Your task to perform on an android device: turn on the 24-hour format for clock Image 0: 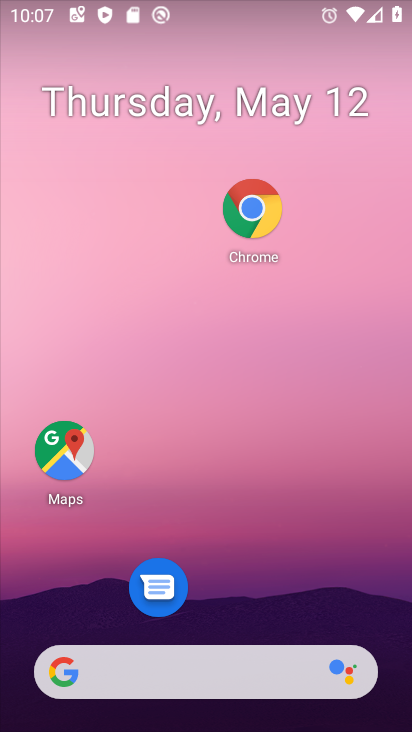
Step 0: drag from (298, 558) to (311, 161)
Your task to perform on an android device: turn on the 24-hour format for clock Image 1: 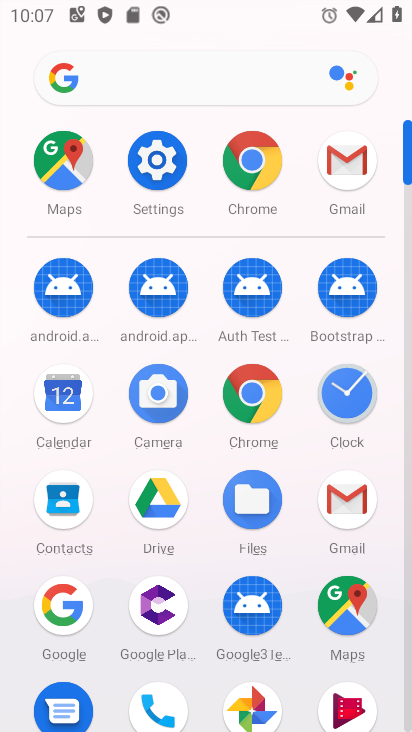
Step 1: click (346, 396)
Your task to perform on an android device: turn on the 24-hour format for clock Image 2: 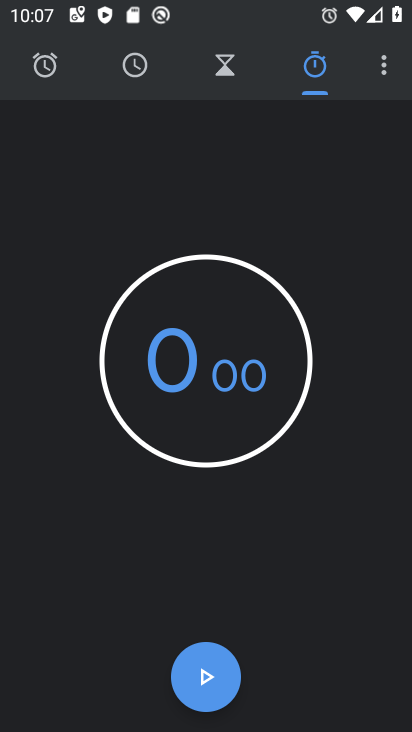
Step 2: click (377, 68)
Your task to perform on an android device: turn on the 24-hour format for clock Image 3: 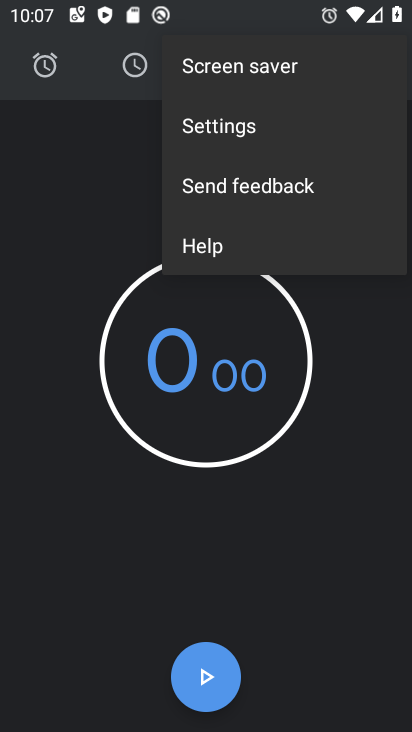
Step 3: click (230, 129)
Your task to perform on an android device: turn on the 24-hour format for clock Image 4: 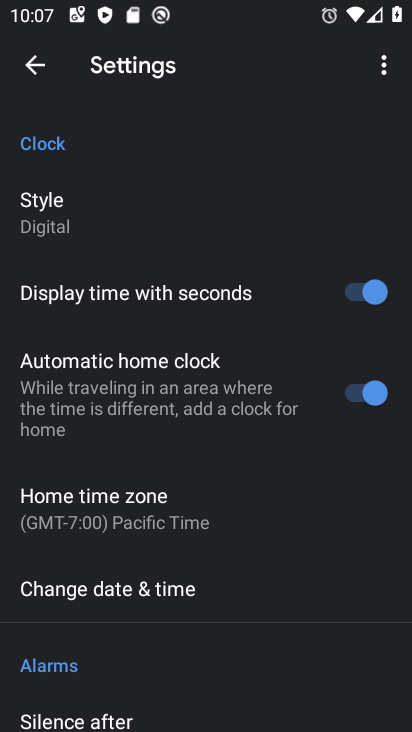
Step 4: click (160, 588)
Your task to perform on an android device: turn on the 24-hour format for clock Image 5: 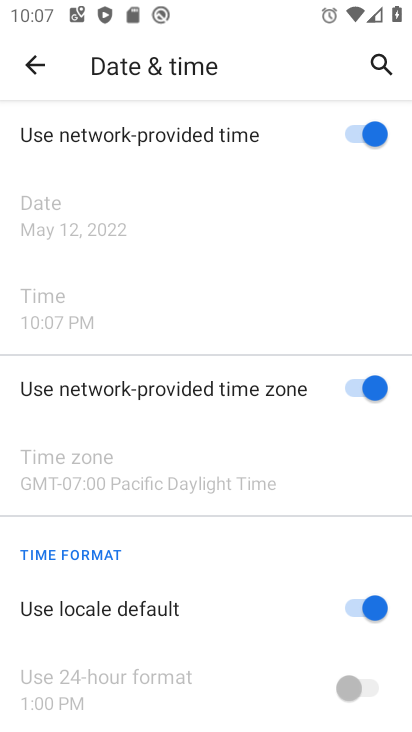
Step 5: drag from (270, 579) to (311, 335)
Your task to perform on an android device: turn on the 24-hour format for clock Image 6: 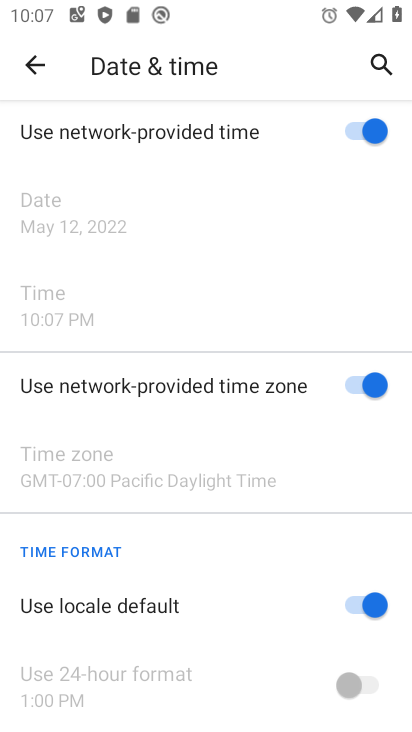
Step 6: click (352, 593)
Your task to perform on an android device: turn on the 24-hour format for clock Image 7: 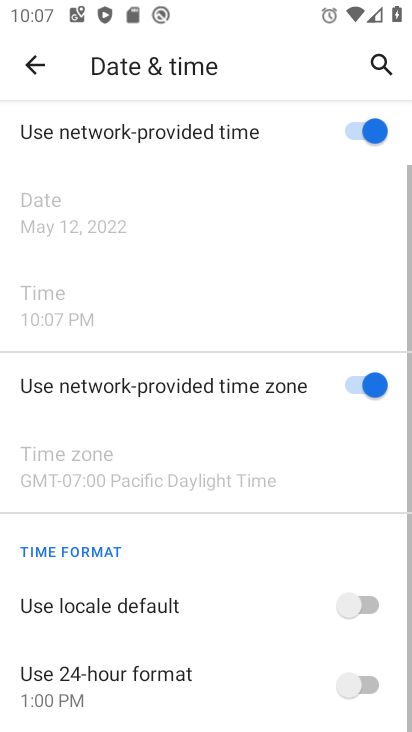
Step 7: click (369, 686)
Your task to perform on an android device: turn on the 24-hour format for clock Image 8: 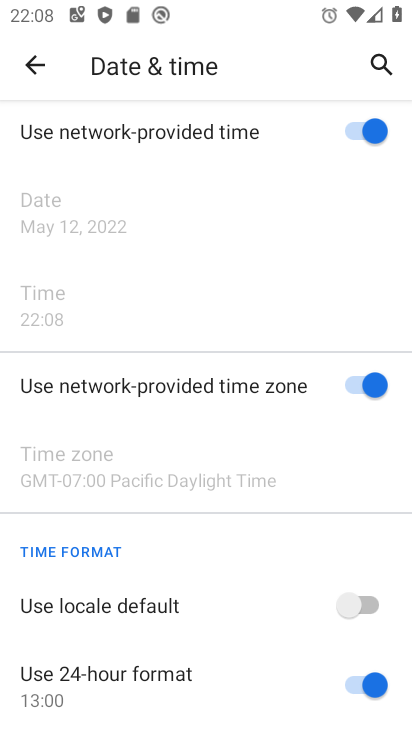
Step 8: task complete